Your task to perform on an android device: Open Chrome and go to settings Image 0: 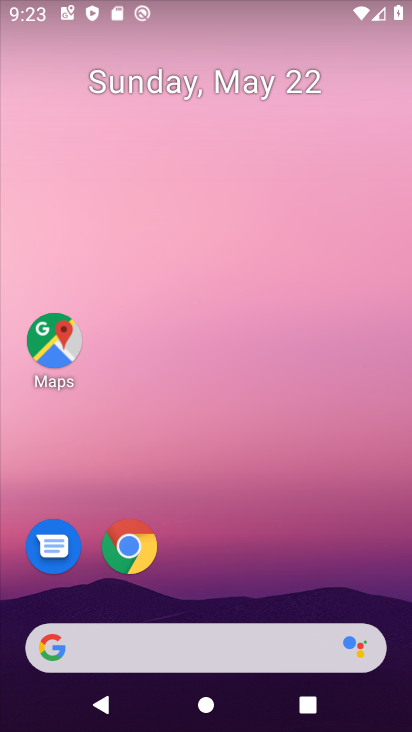
Step 0: click (141, 547)
Your task to perform on an android device: Open Chrome and go to settings Image 1: 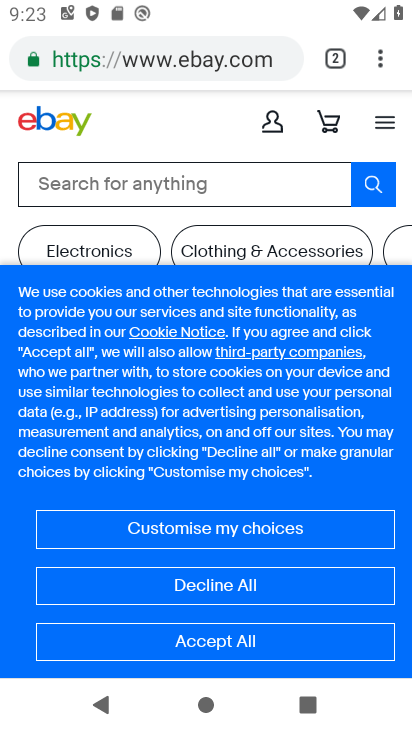
Step 1: task complete